Your task to perform on an android device: Add logitech g502 to the cart on ebay, then select checkout. Image 0: 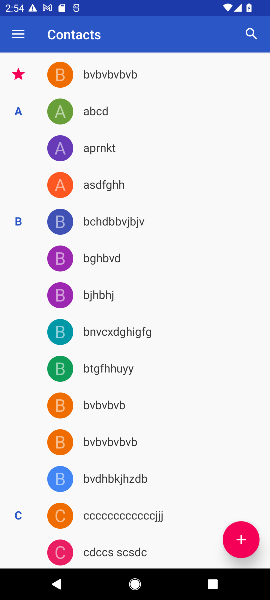
Step 0: press home button
Your task to perform on an android device: Add logitech g502 to the cart on ebay, then select checkout. Image 1: 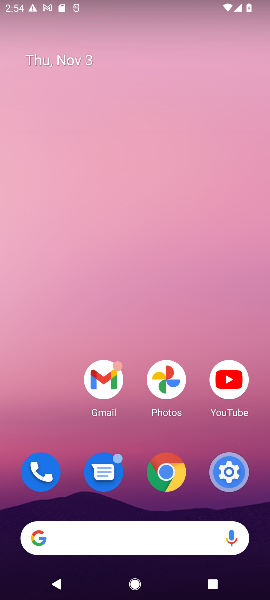
Step 1: click (143, 528)
Your task to perform on an android device: Add logitech g502 to the cart on ebay, then select checkout. Image 2: 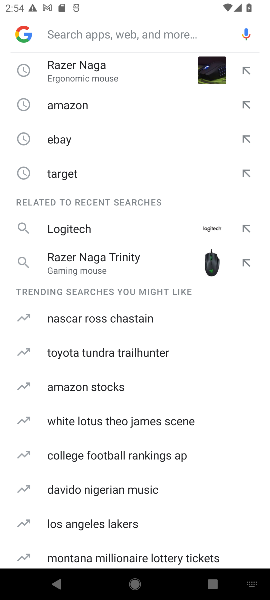
Step 2: click (87, 131)
Your task to perform on an android device: Add logitech g502 to the cart on ebay, then select checkout. Image 3: 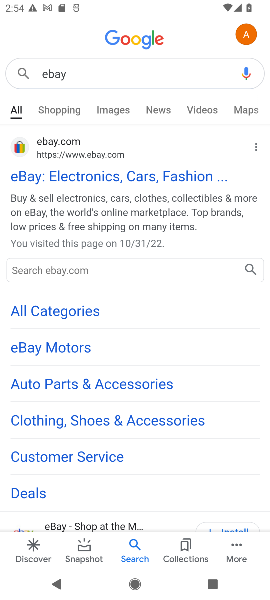
Step 3: click (72, 182)
Your task to perform on an android device: Add logitech g502 to the cart on ebay, then select checkout. Image 4: 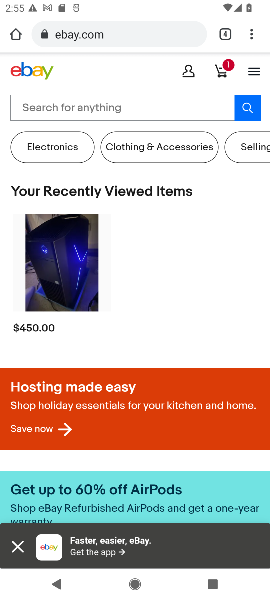
Step 4: click (86, 108)
Your task to perform on an android device: Add logitech g502 to the cart on ebay, then select checkout. Image 5: 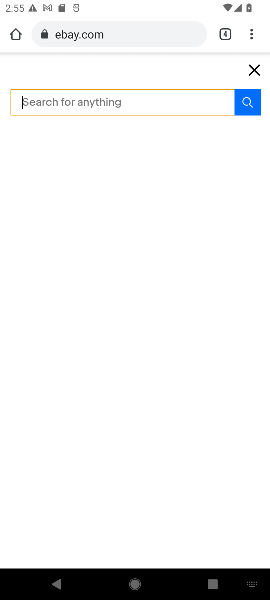
Step 5: type "logitech g502"
Your task to perform on an android device: Add logitech g502 to the cart on ebay, then select checkout. Image 6: 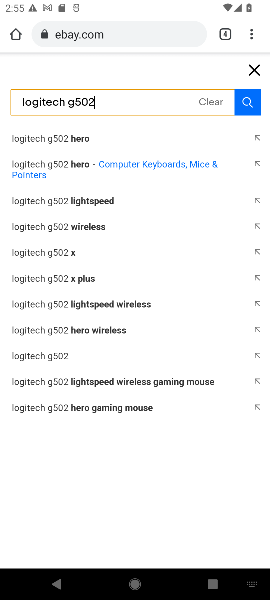
Step 6: click (241, 103)
Your task to perform on an android device: Add logitech g502 to the cart on ebay, then select checkout. Image 7: 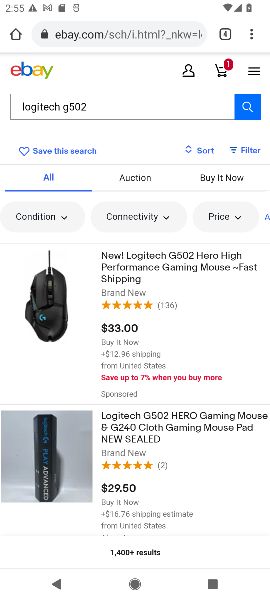
Step 7: click (159, 281)
Your task to perform on an android device: Add logitech g502 to the cart on ebay, then select checkout. Image 8: 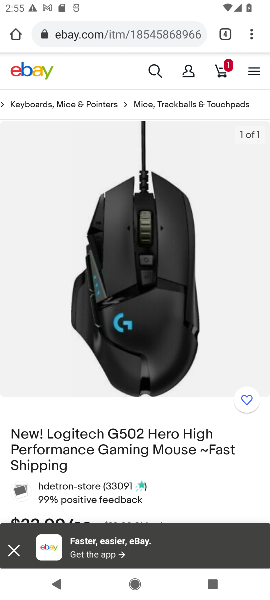
Step 8: click (18, 548)
Your task to perform on an android device: Add logitech g502 to the cart on ebay, then select checkout. Image 9: 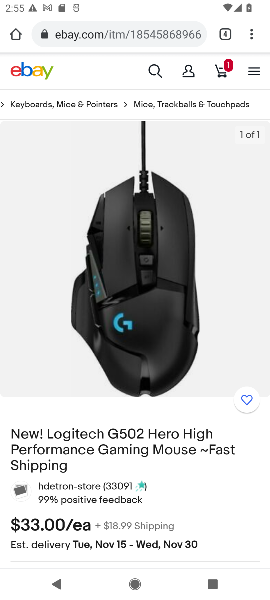
Step 9: drag from (200, 473) to (185, 236)
Your task to perform on an android device: Add logitech g502 to the cart on ebay, then select checkout. Image 10: 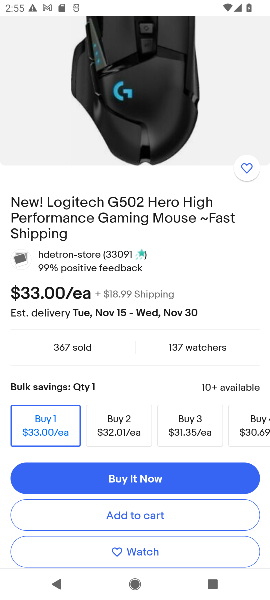
Step 10: click (93, 517)
Your task to perform on an android device: Add logitech g502 to the cart on ebay, then select checkout. Image 11: 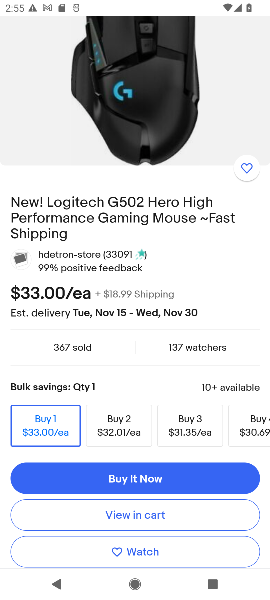
Step 11: task complete